Your task to perform on an android device: turn off location Image 0: 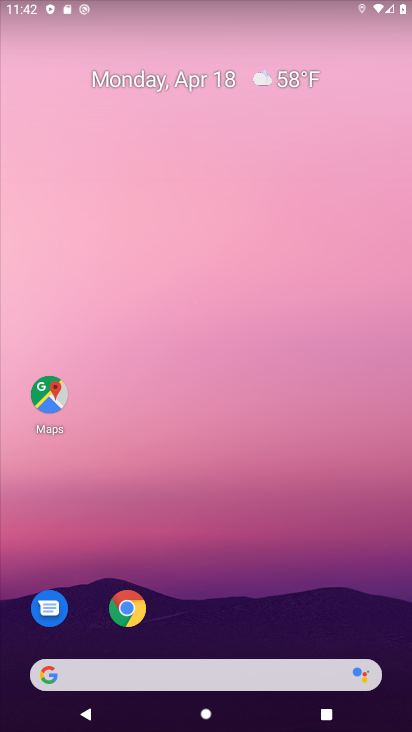
Step 0: drag from (262, 518) to (266, 128)
Your task to perform on an android device: turn off location Image 1: 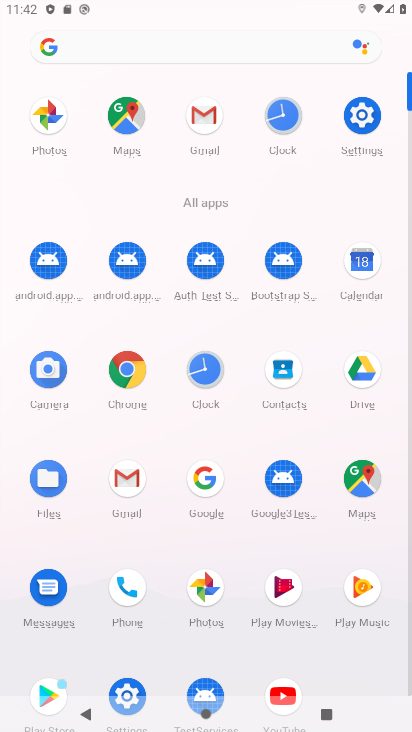
Step 1: click (359, 121)
Your task to perform on an android device: turn off location Image 2: 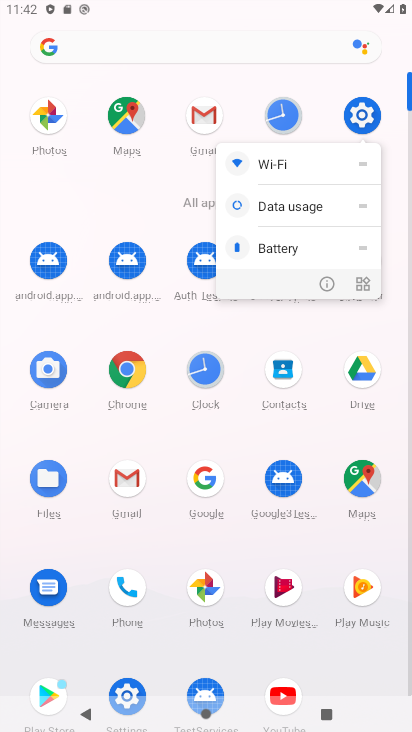
Step 2: click (361, 114)
Your task to perform on an android device: turn off location Image 3: 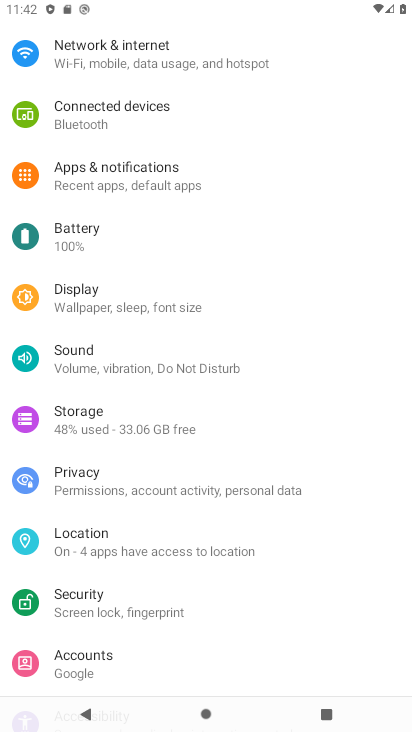
Step 3: click (121, 559)
Your task to perform on an android device: turn off location Image 4: 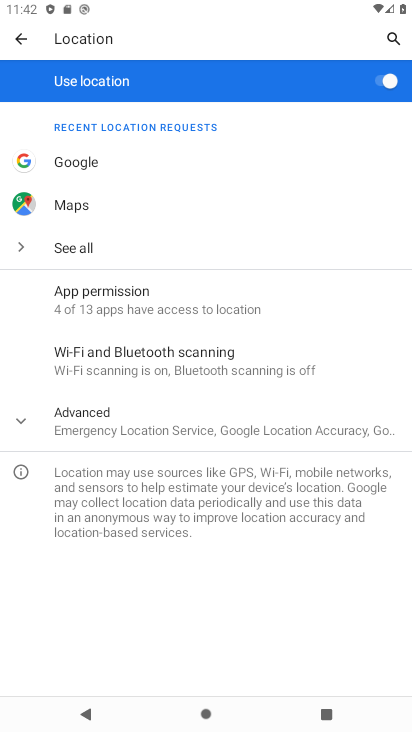
Step 4: click (301, 82)
Your task to perform on an android device: turn off location Image 5: 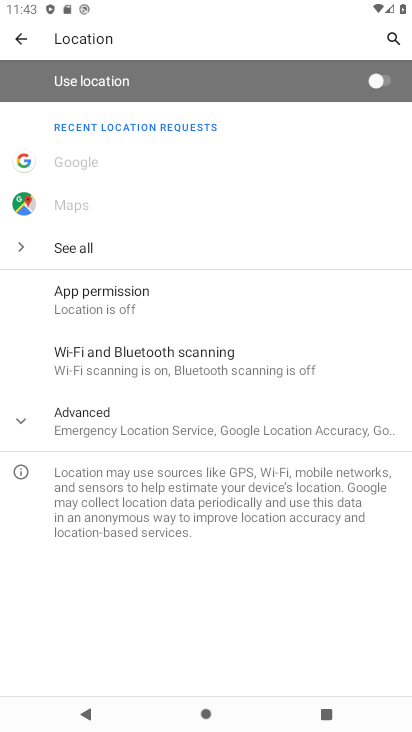
Step 5: task complete